Your task to perform on an android device: check the backup settings in the google photos Image 0: 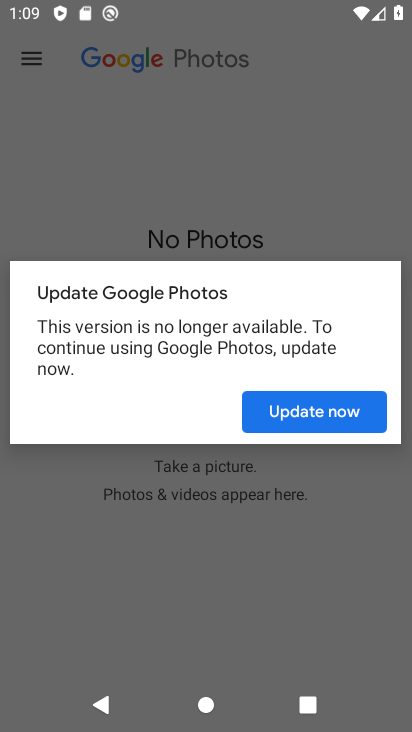
Step 0: press home button
Your task to perform on an android device: check the backup settings in the google photos Image 1: 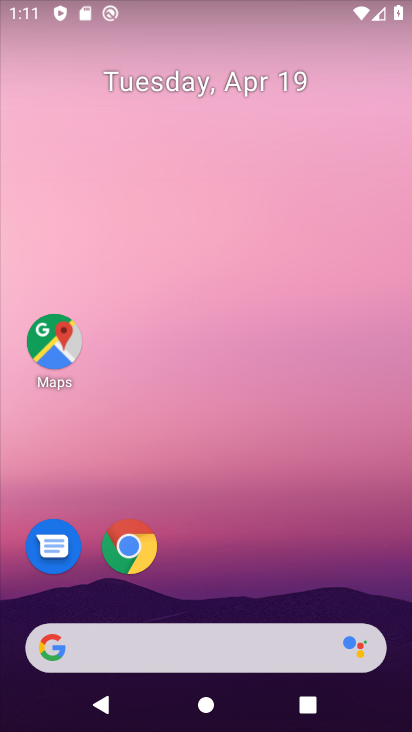
Step 1: drag from (233, 539) to (312, 20)
Your task to perform on an android device: check the backup settings in the google photos Image 2: 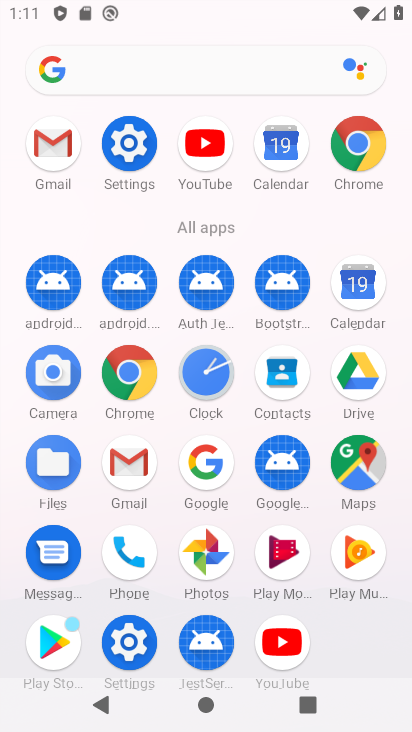
Step 2: click (205, 557)
Your task to perform on an android device: check the backup settings in the google photos Image 3: 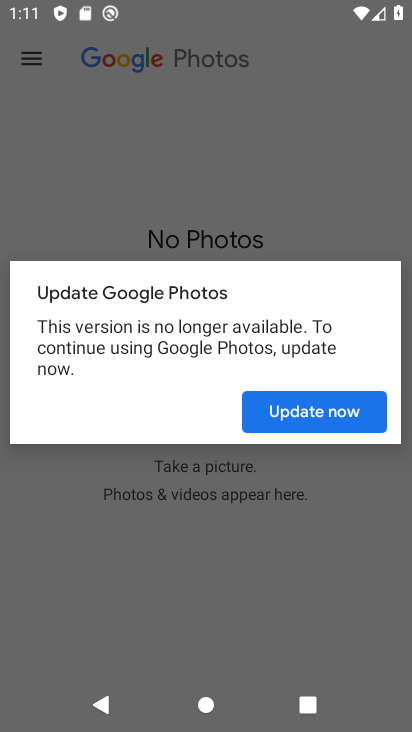
Step 3: press back button
Your task to perform on an android device: check the backup settings in the google photos Image 4: 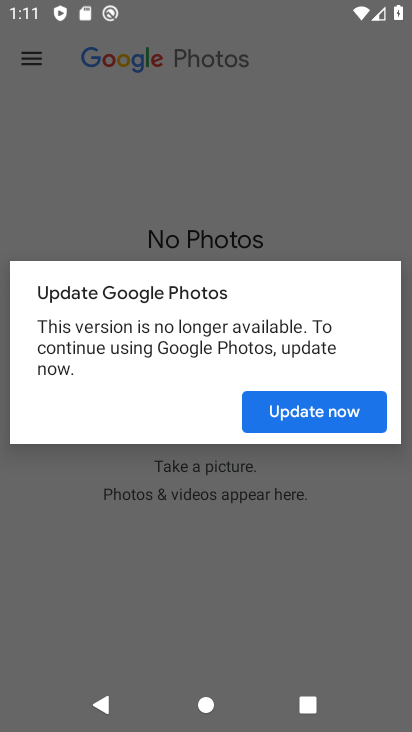
Step 4: click (240, 544)
Your task to perform on an android device: check the backup settings in the google photos Image 5: 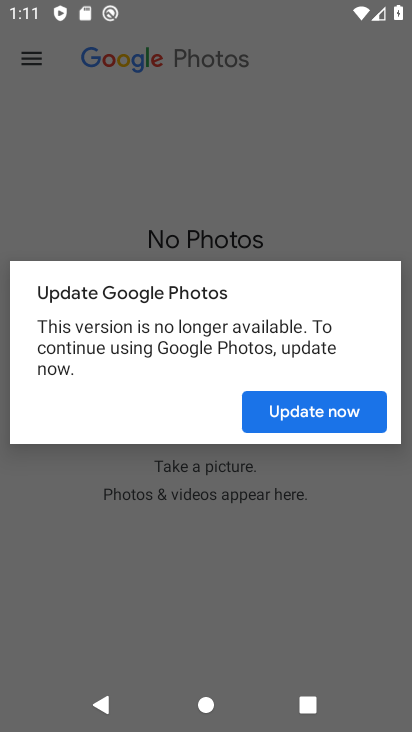
Step 5: click (315, 406)
Your task to perform on an android device: check the backup settings in the google photos Image 6: 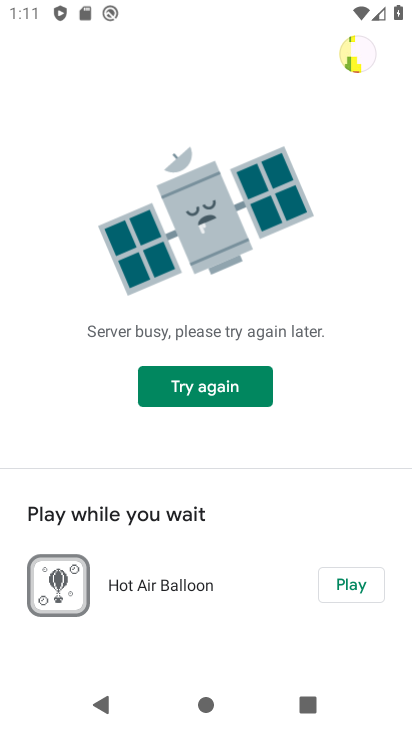
Step 6: press back button
Your task to perform on an android device: check the backup settings in the google photos Image 7: 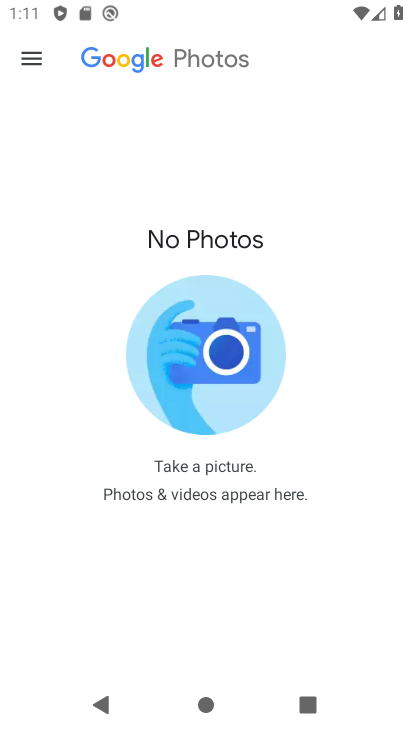
Step 7: click (17, 67)
Your task to perform on an android device: check the backup settings in the google photos Image 8: 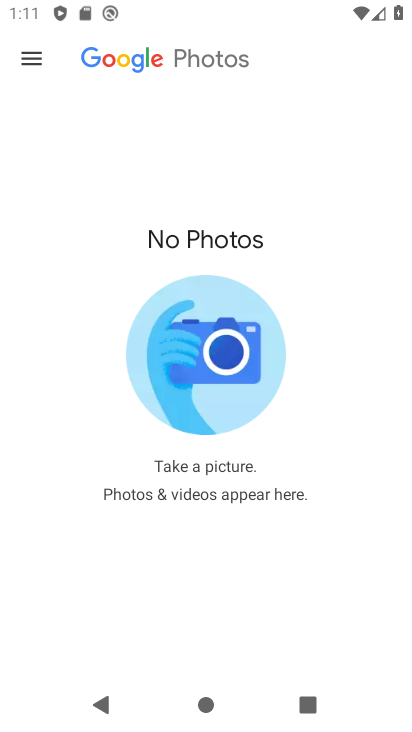
Step 8: click (36, 60)
Your task to perform on an android device: check the backup settings in the google photos Image 9: 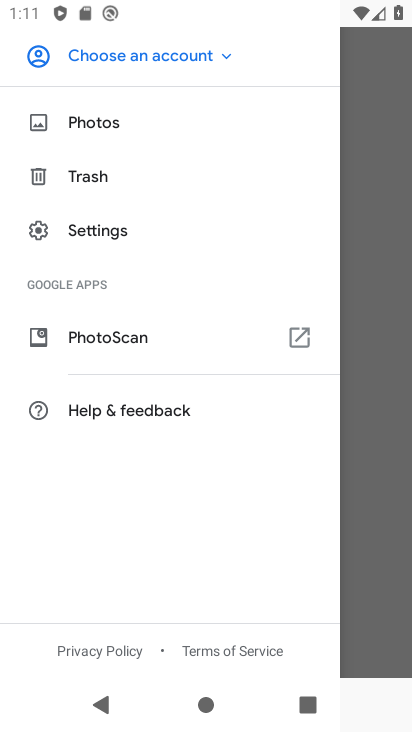
Step 9: click (111, 225)
Your task to perform on an android device: check the backup settings in the google photos Image 10: 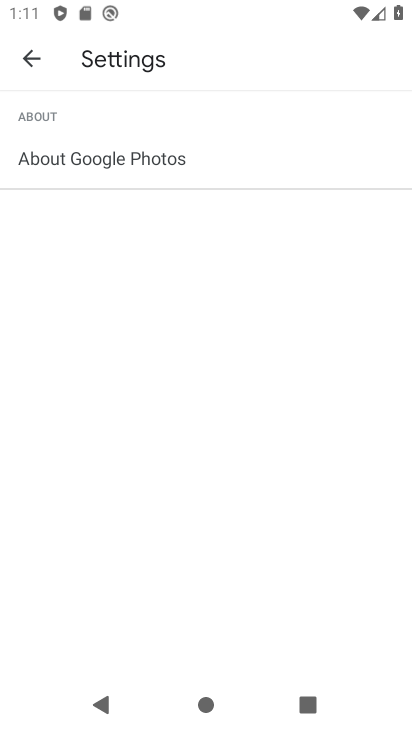
Step 10: click (18, 42)
Your task to perform on an android device: check the backup settings in the google photos Image 11: 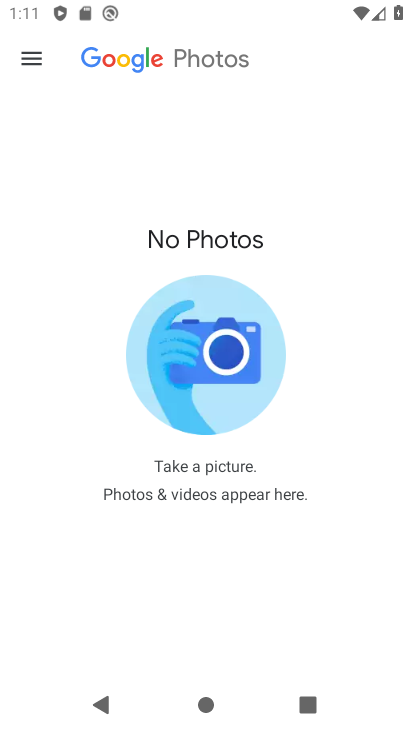
Step 11: click (21, 51)
Your task to perform on an android device: check the backup settings in the google photos Image 12: 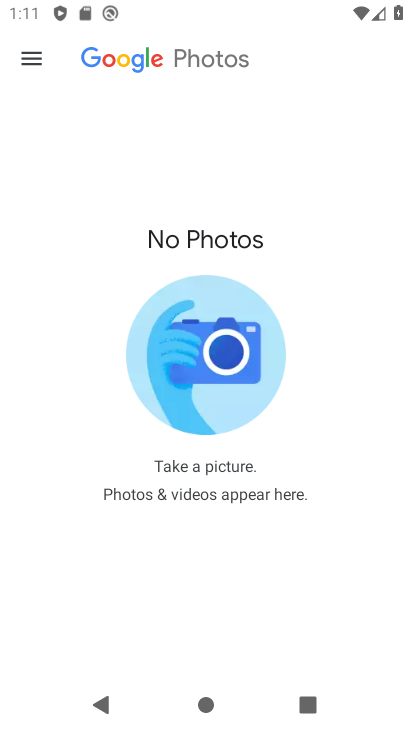
Step 12: click (22, 53)
Your task to perform on an android device: check the backup settings in the google photos Image 13: 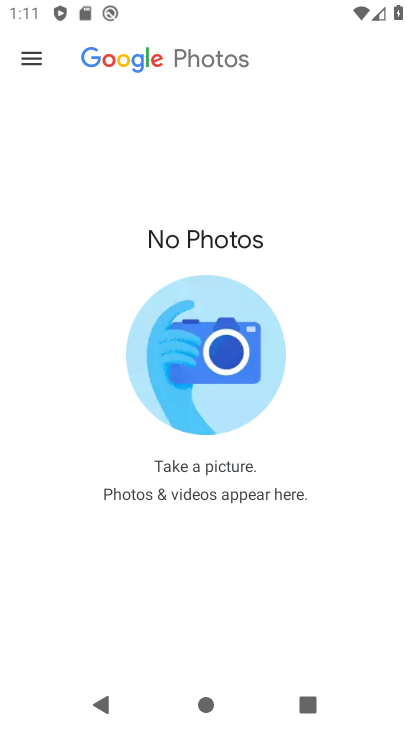
Step 13: click (27, 57)
Your task to perform on an android device: check the backup settings in the google photos Image 14: 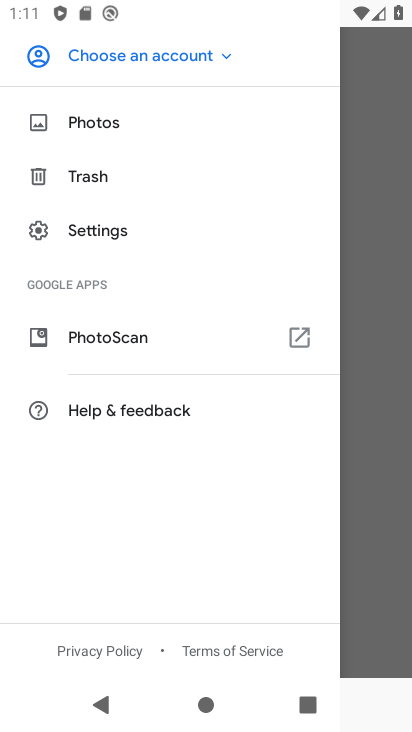
Step 14: drag from (126, 284) to (127, 594)
Your task to perform on an android device: check the backup settings in the google photos Image 15: 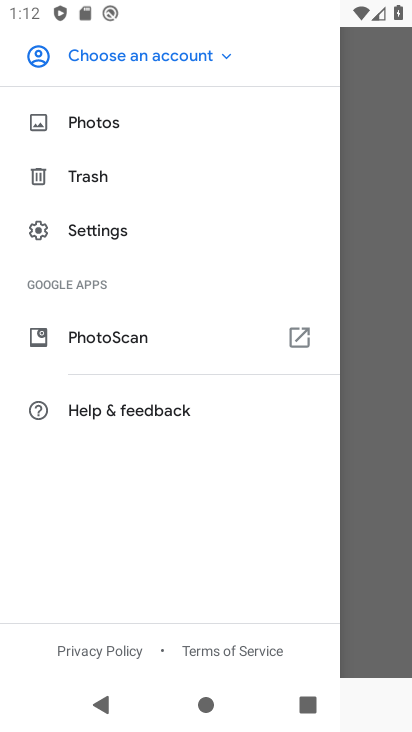
Step 15: click (170, 55)
Your task to perform on an android device: check the backup settings in the google photos Image 16: 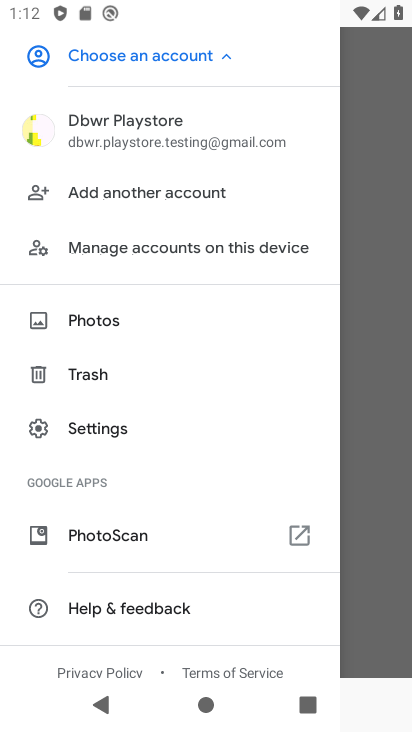
Step 16: click (136, 126)
Your task to perform on an android device: check the backup settings in the google photos Image 17: 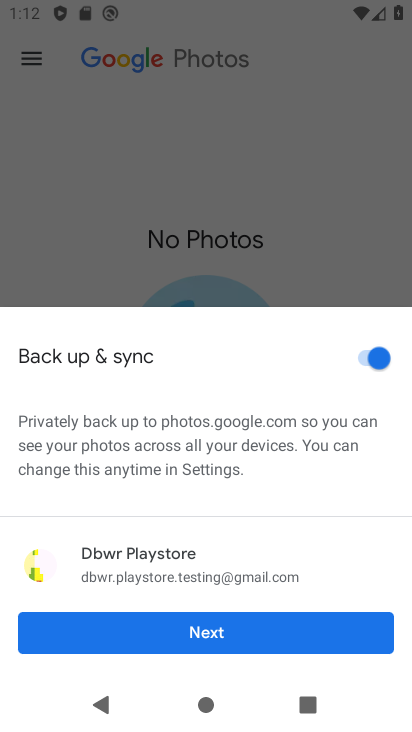
Step 17: click (210, 640)
Your task to perform on an android device: check the backup settings in the google photos Image 18: 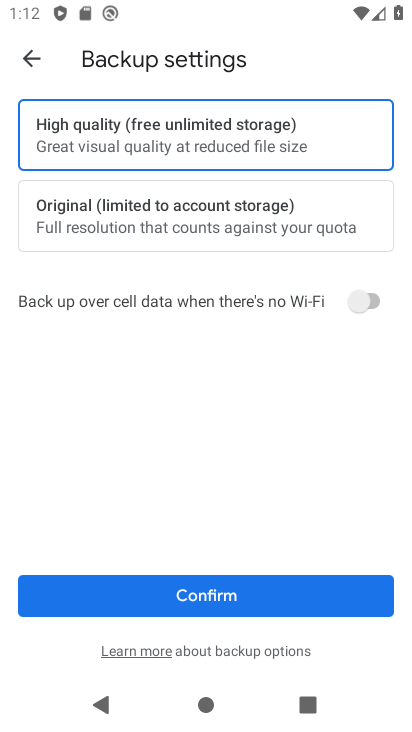
Step 18: task complete